Your task to perform on an android device: Open settings Image 0: 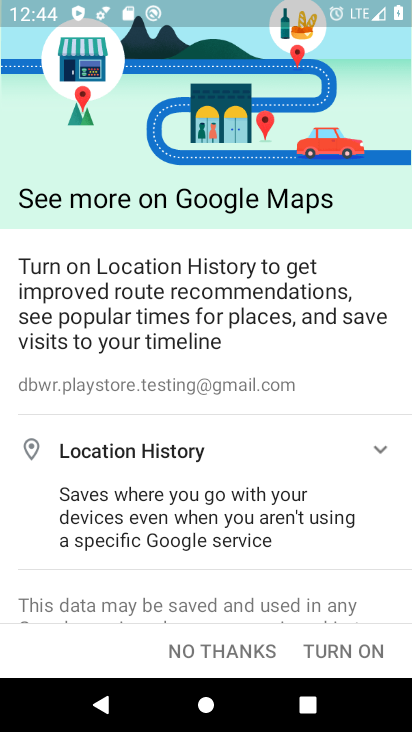
Step 0: click (263, 637)
Your task to perform on an android device: Open settings Image 1: 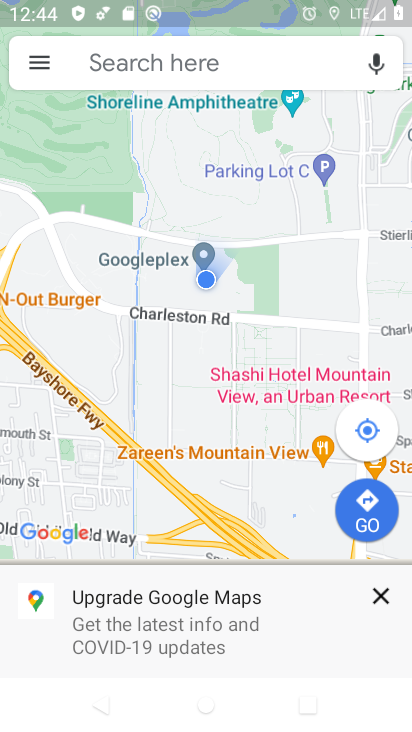
Step 1: press home button
Your task to perform on an android device: Open settings Image 2: 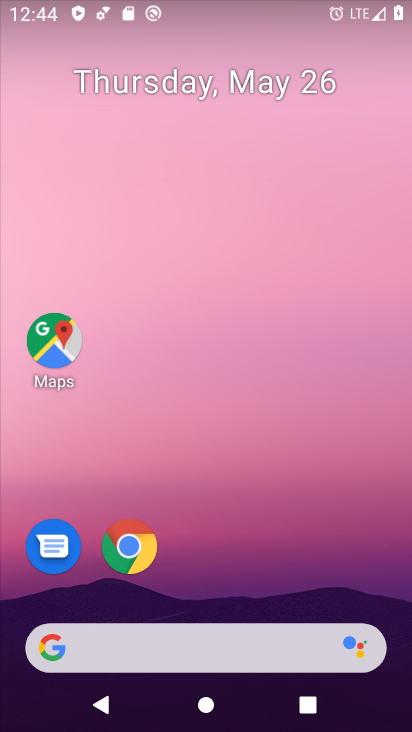
Step 2: drag from (344, 580) to (324, 46)
Your task to perform on an android device: Open settings Image 3: 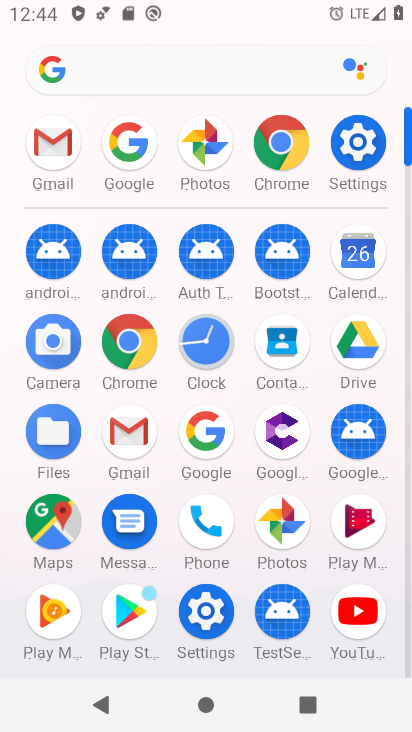
Step 3: click (348, 138)
Your task to perform on an android device: Open settings Image 4: 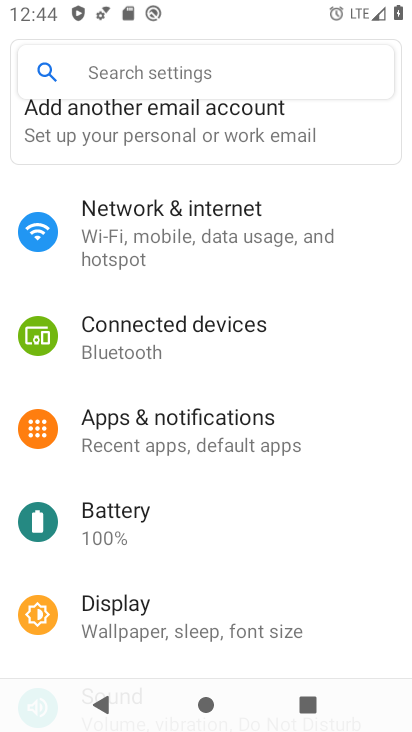
Step 4: task complete